Your task to perform on an android device: Show me recent news Image 0: 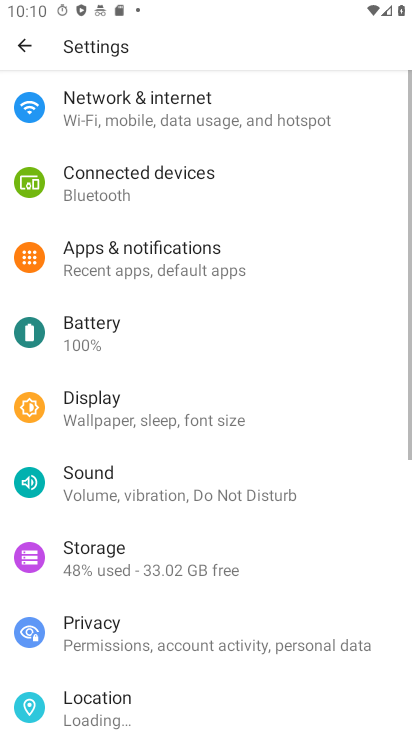
Step 0: drag from (263, 696) to (163, 213)
Your task to perform on an android device: Show me recent news Image 1: 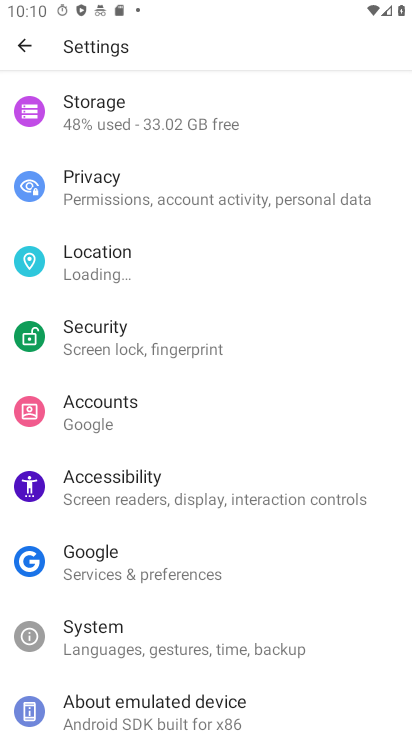
Step 1: click (29, 52)
Your task to perform on an android device: Show me recent news Image 2: 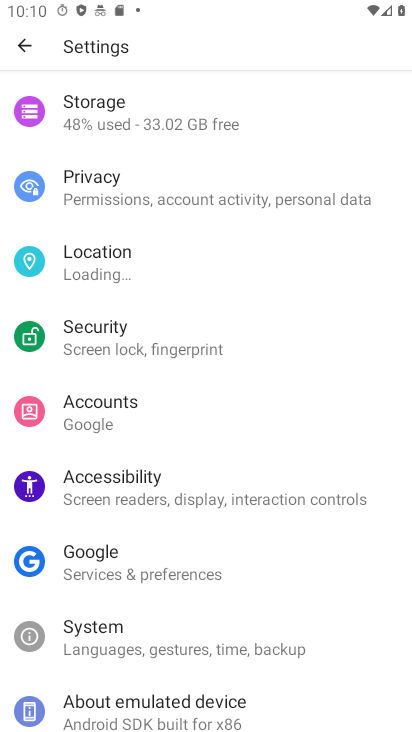
Step 2: click (22, 49)
Your task to perform on an android device: Show me recent news Image 3: 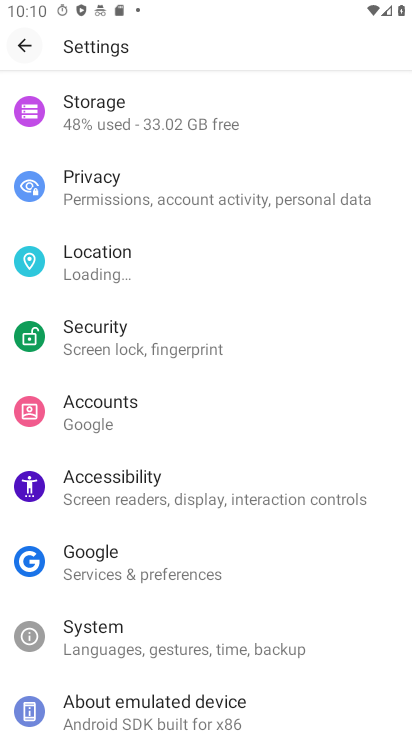
Step 3: click (21, 49)
Your task to perform on an android device: Show me recent news Image 4: 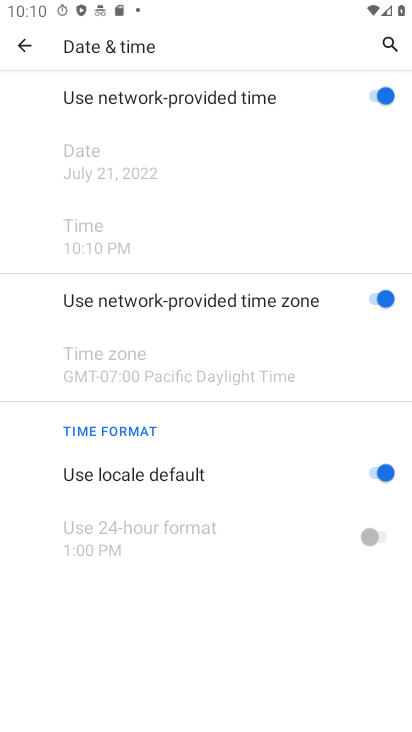
Step 4: click (23, 43)
Your task to perform on an android device: Show me recent news Image 5: 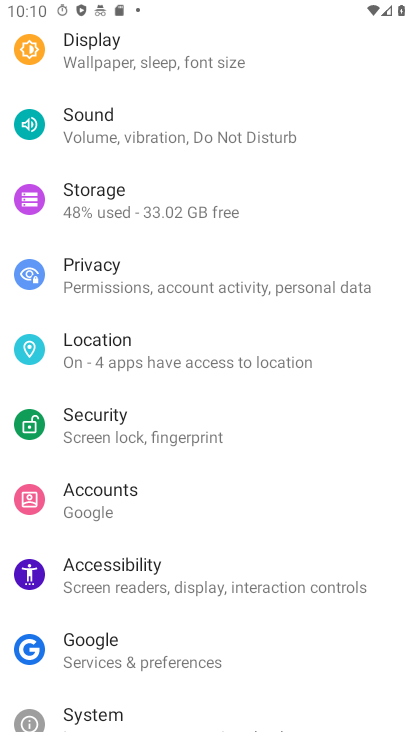
Step 5: press back button
Your task to perform on an android device: Show me recent news Image 6: 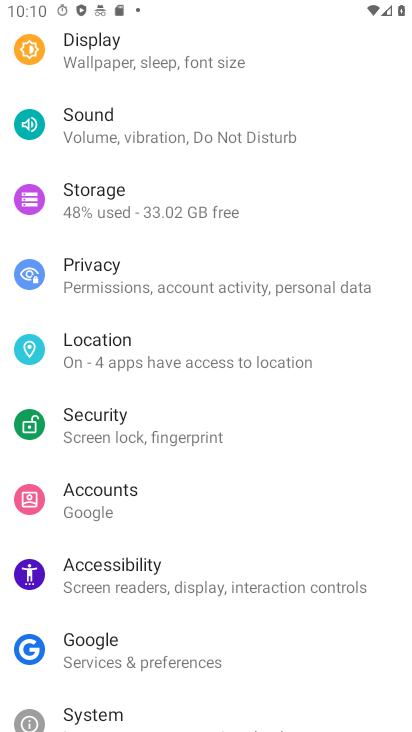
Step 6: press back button
Your task to perform on an android device: Show me recent news Image 7: 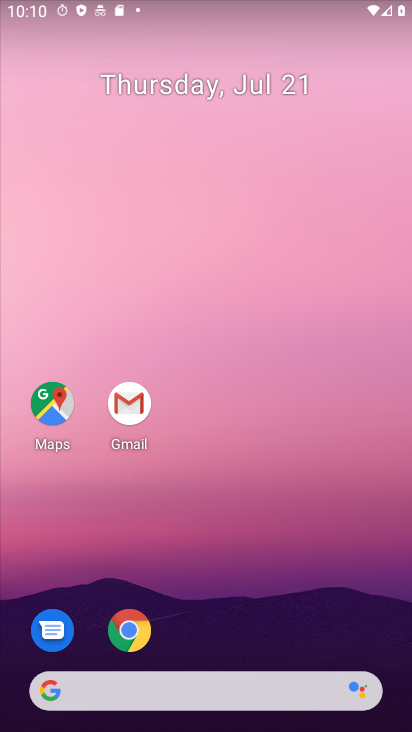
Step 7: drag from (220, 620) to (201, 187)
Your task to perform on an android device: Show me recent news Image 8: 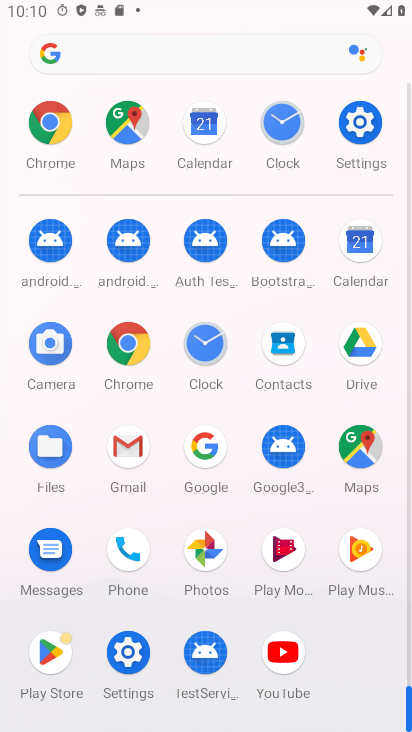
Step 8: click (8, 144)
Your task to perform on an android device: Show me recent news Image 9: 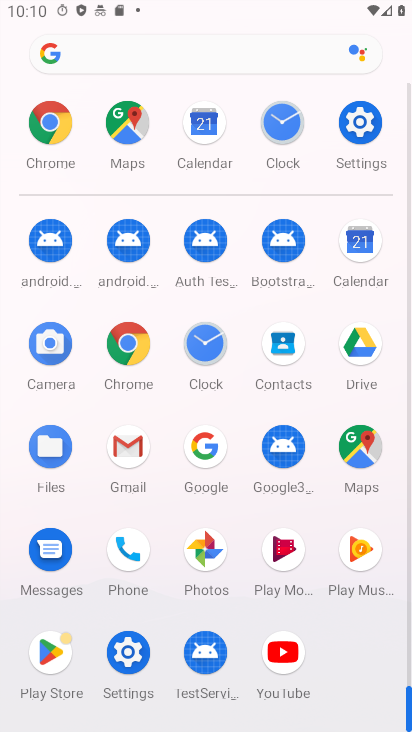
Step 9: click (35, 120)
Your task to perform on an android device: Show me recent news Image 10: 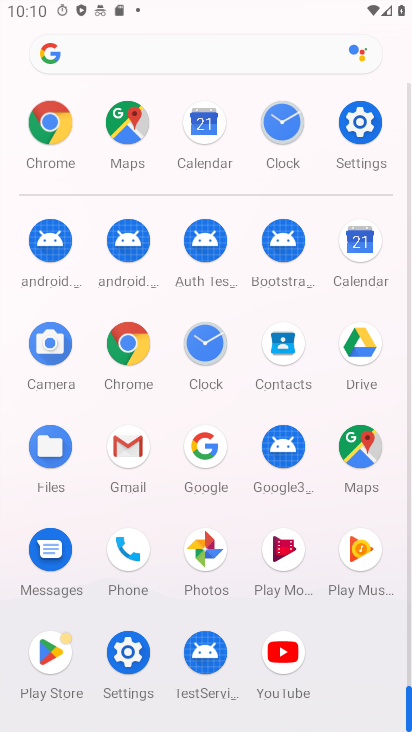
Step 10: click (42, 113)
Your task to perform on an android device: Show me recent news Image 11: 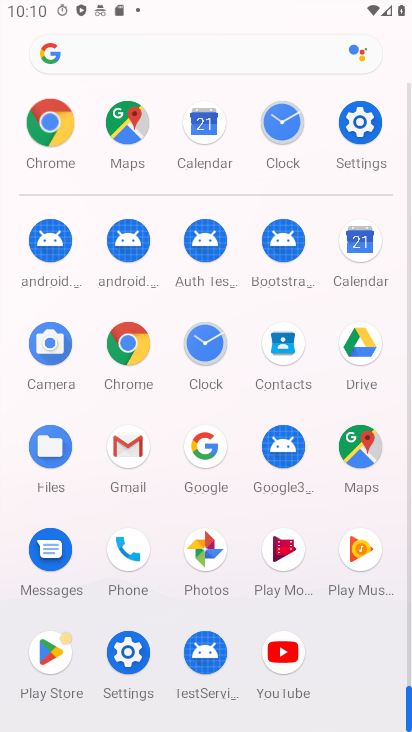
Step 11: click (43, 113)
Your task to perform on an android device: Show me recent news Image 12: 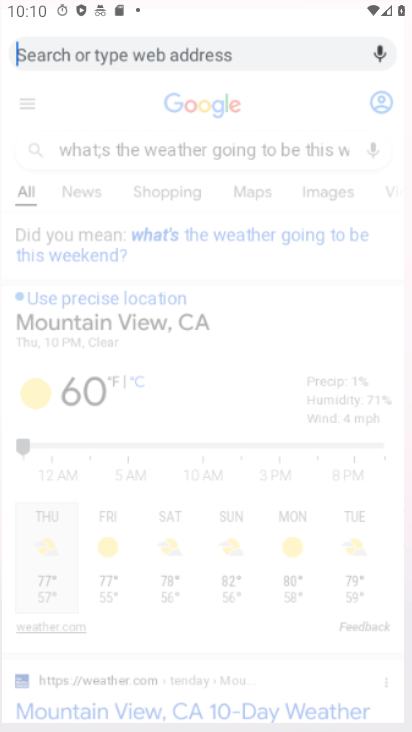
Step 12: click (53, 105)
Your task to perform on an android device: Show me recent news Image 13: 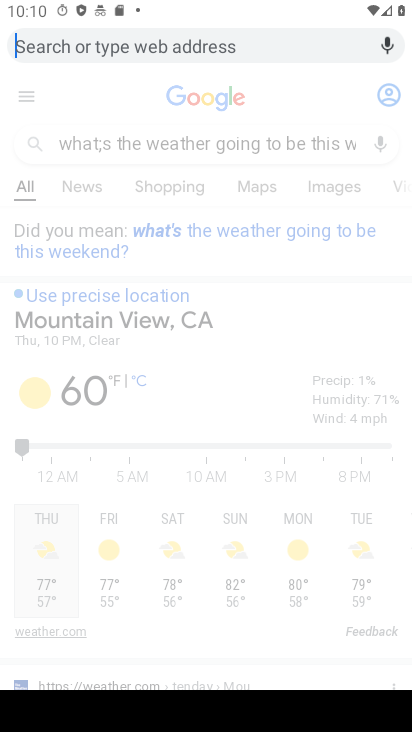
Step 13: drag from (258, 478) to (235, 200)
Your task to perform on an android device: Show me recent news Image 14: 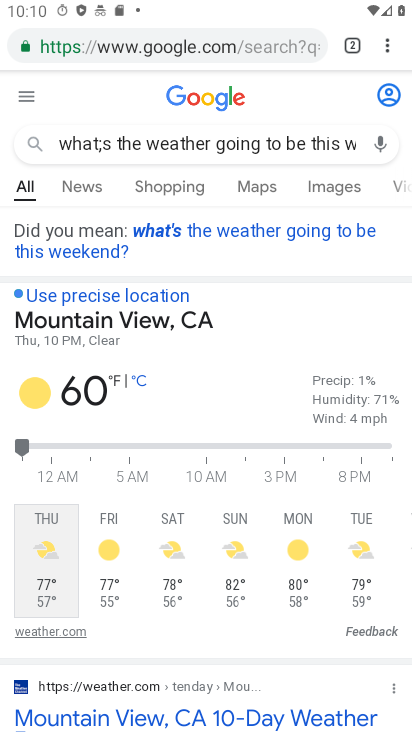
Step 14: click (233, 240)
Your task to perform on an android device: Show me recent news Image 15: 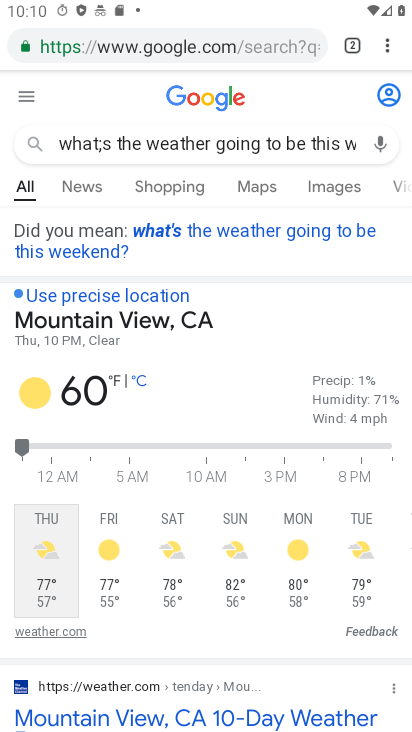
Step 15: click (236, 239)
Your task to perform on an android device: Show me recent news Image 16: 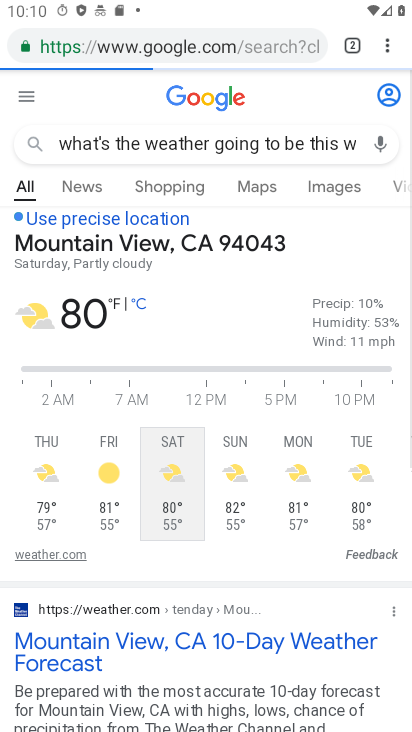
Step 16: drag from (390, 43) to (218, 84)
Your task to perform on an android device: Show me recent news Image 17: 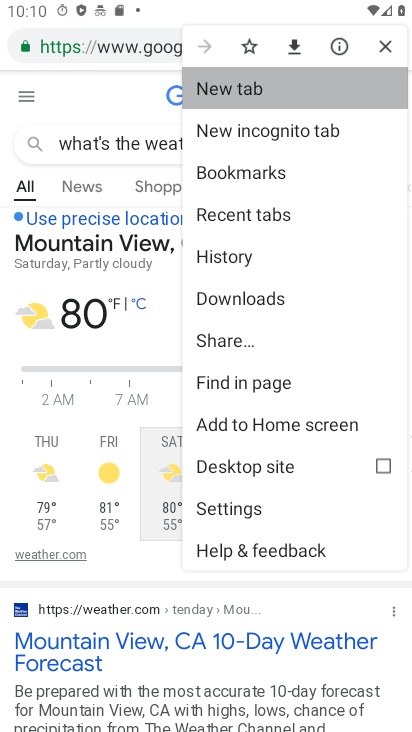
Step 17: click (225, 79)
Your task to perform on an android device: Show me recent news Image 18: 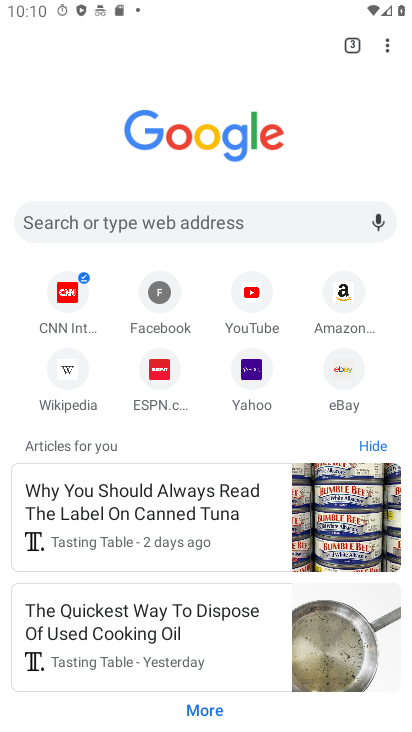
Step 18: drag from (188, 543) to (211, 350)
Your task to perform on an android device: Show me recent news Image 19: 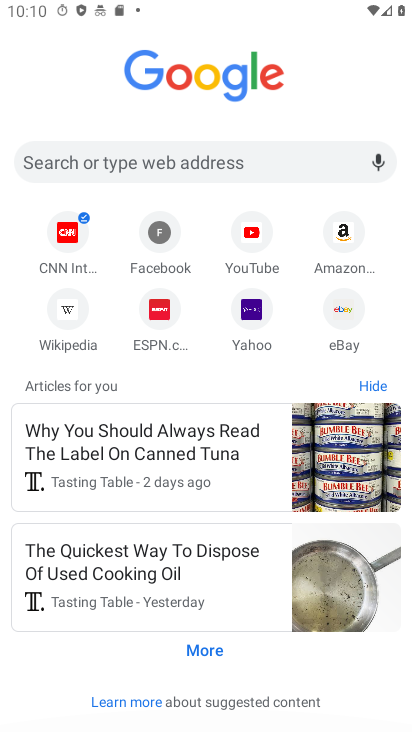
Step 19: drag from (233, 521) to (217, 345)
Your task to perform on an android device: Show me recent news Image 20: 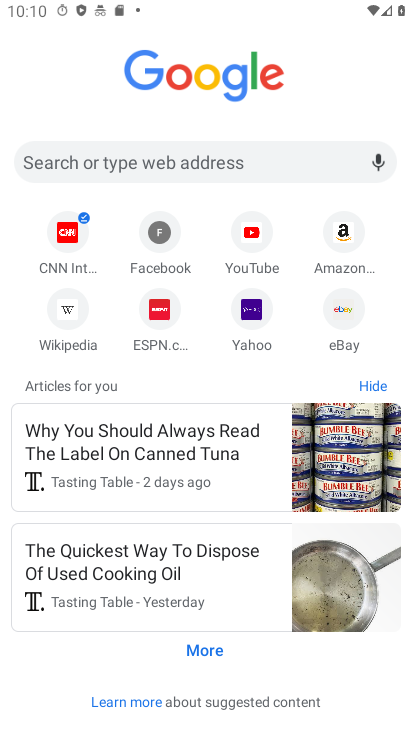
Step 20: drag from (230, 490) to (258, 191)
Your task to perform on an android device: Show me recent news Image 21: 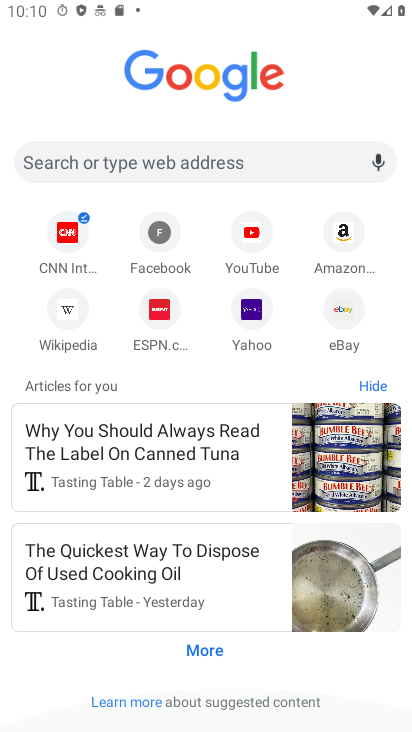
Step 21: drag from (219, 492) to (215, 227)
Your task to perform on an android device: Show me recent news Image 22: 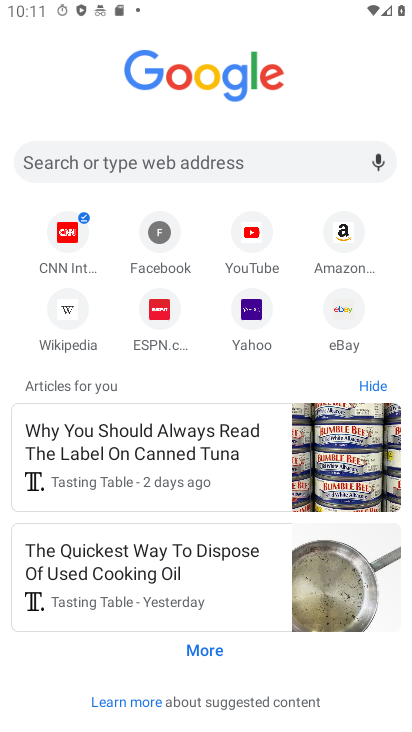
Step 22: click (185, 594)
Your task to perform on an android device: Show me recent news Image 23: 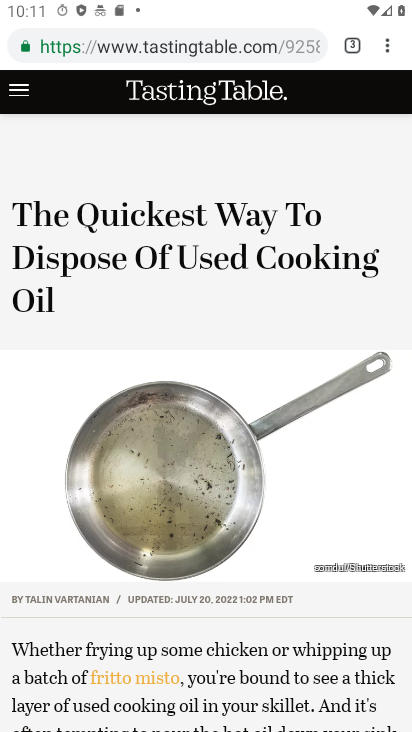
Step 23: drag from (153, 585) to (124, 354)
Your task to perform on an android device: Show me recent news Image 24: 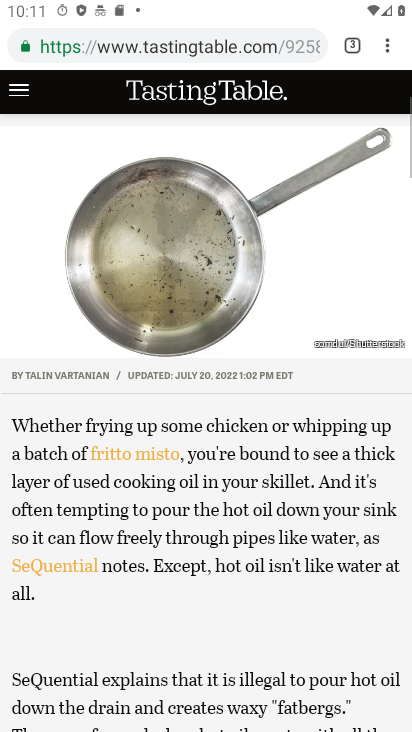
Step 24: drag from (137, 576) to (132, 386)
Your task to perform on an android device: Show me recent news Image 25: 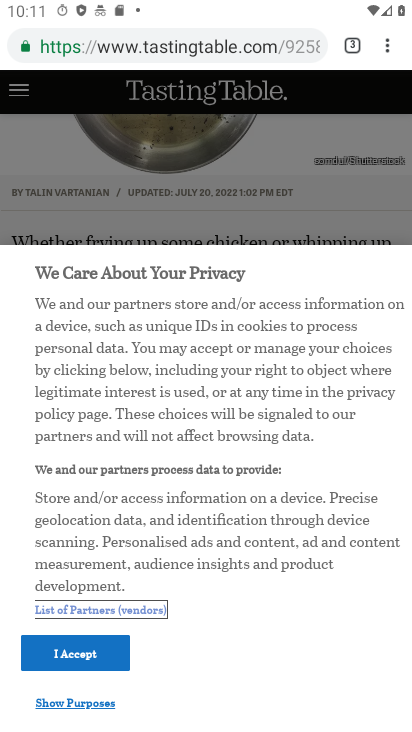
Step 25: click (172, 668)
Your task to perform on an android device: Show me recent news Image 26: 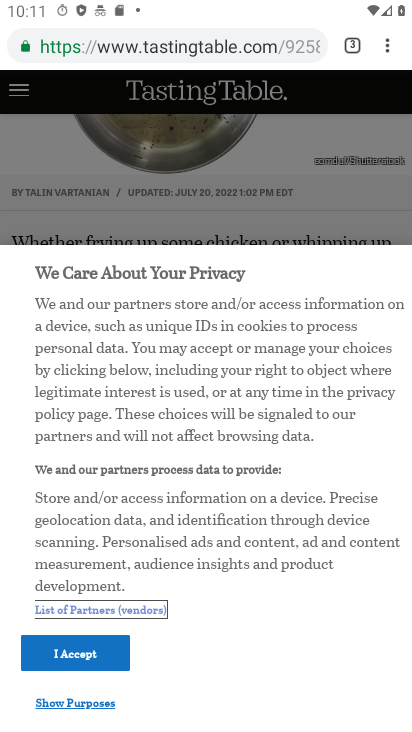
Step 26: click (172, 666)
Your task to perform on an android device: Show me recent news Image 27: 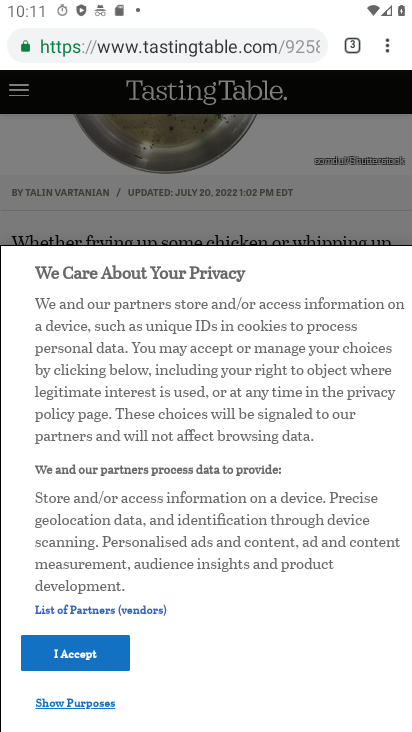
Step 27: task complete